Your task to perform on an android device: Open Chrome and go to settings Image 0: 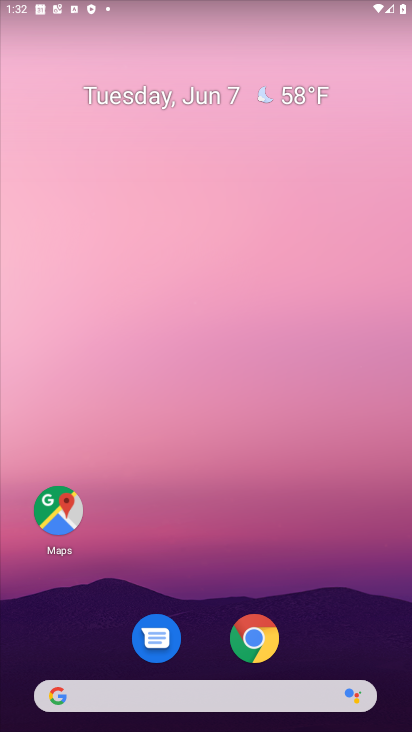
Step 0: drag from (207, 626) to (254, 292)
Your task to perform on an android device: Open Chrome and go to settings Image 1: 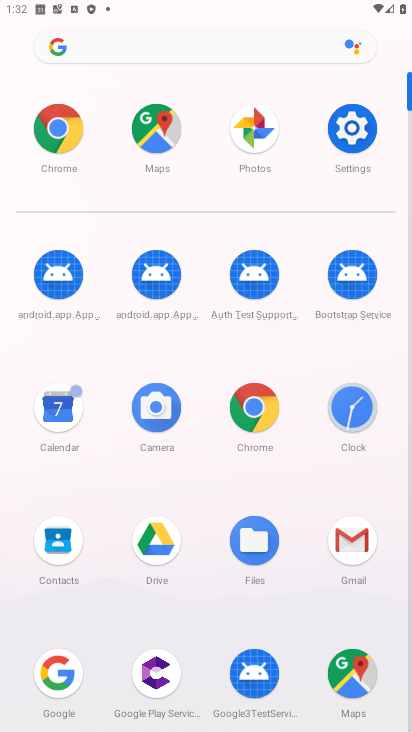
Step 1: click (252, 399)
Your task to perform on an android device: Open Chrome and go to settings Image 2: 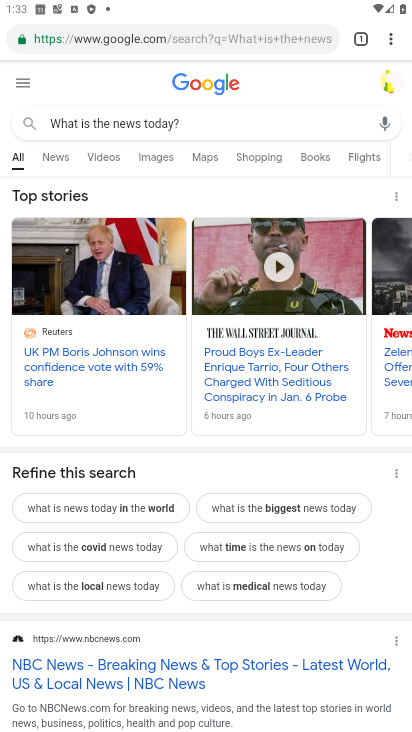
Step 2: click (392, 44)
Your task to perform on an android device: Open Chrome and go to settings Image 3: 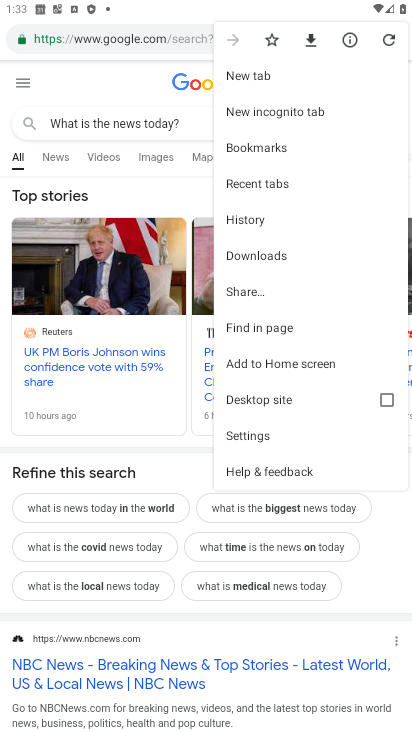
Step 3: click (255, 434)
Your task to perform on an android device: Open Chrome and go to settings Image 4: 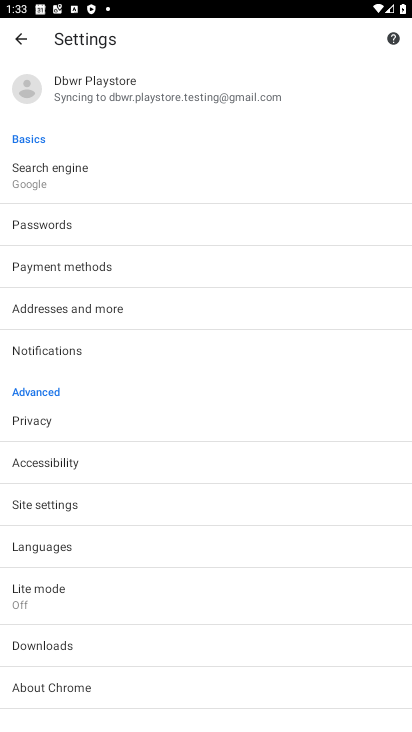
Step 4: task complete